Your task to perform on an android device: turn pop-ups off in chrome Image 0: 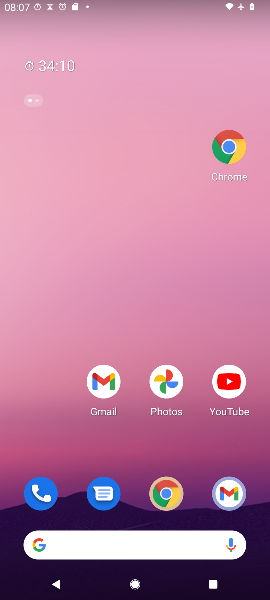
Step 0: press home button
Your task to perform on an android device: turn pop-ups off in chrome Image 1: 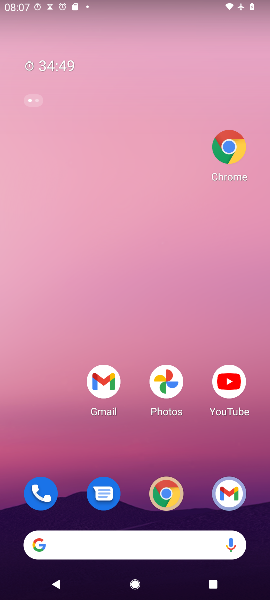
Step 1: click (223, 148)
Your task to perform on an android device: turn pop-ups off in chrome Image 2: 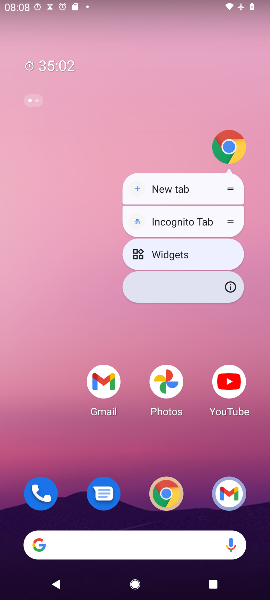
Step 2: click (231, 143)
Your task to perform on an android device: turn pop-ups off in chrome Image 3: 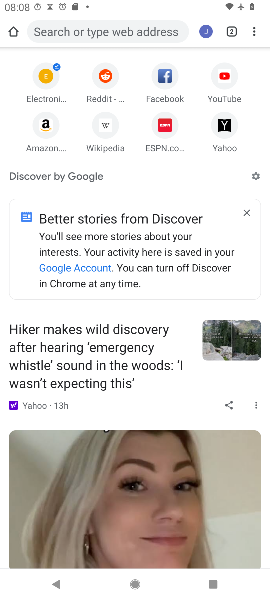
Step 3: drag from (249, 29) to (189, 311)
Your task to perform on an android device: turn pop-ups off in chrome Image 4: 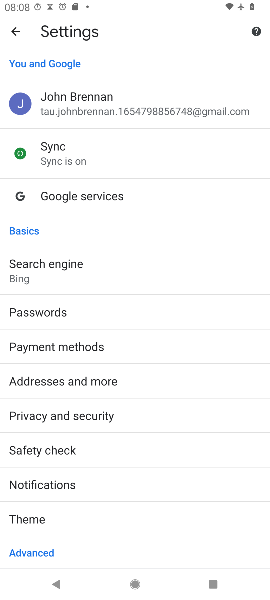
Step 4: drag from (153, 549) to (192, 139)
Your task to perform on an android device: turn pop-ups off in chrome Image 5: 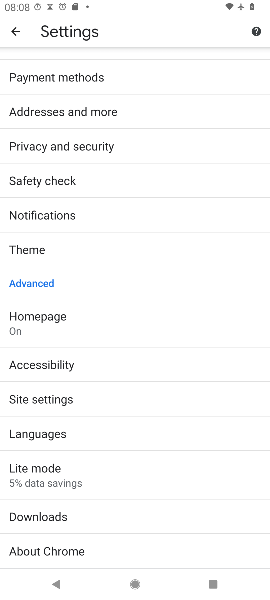
Step 5: click (47, 400)
Your task to perform on an android device: turn pop-ups off in chrome Image 6: 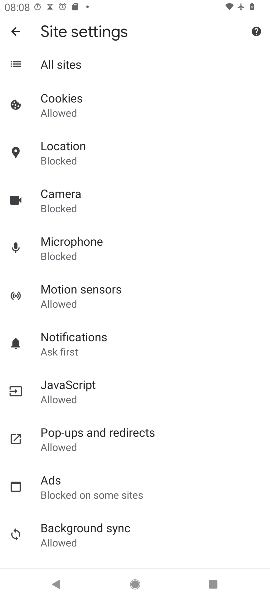
Step 6: click (60, 443)
Your task to perform on an android device: turn pop-ups off in chrome Image 7: 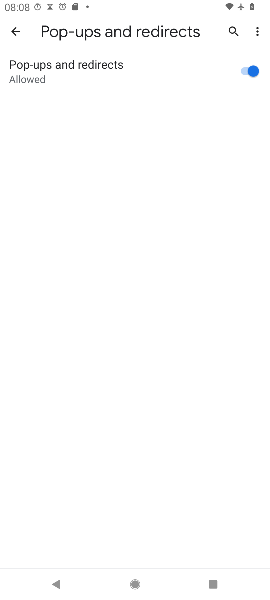
Step 7: click (249, 69)
Your task to perform on an android device: turn pop-ups off in chrome Image 8: 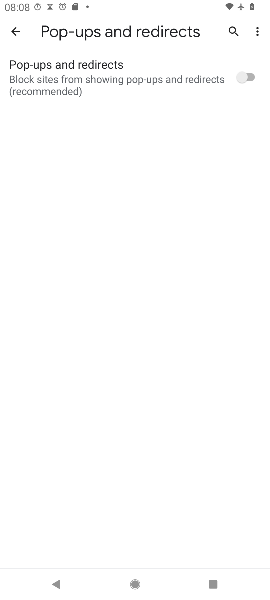
Step 8: task complete